Your task to perform on an android device: turn off picture-in-picture Image 0: 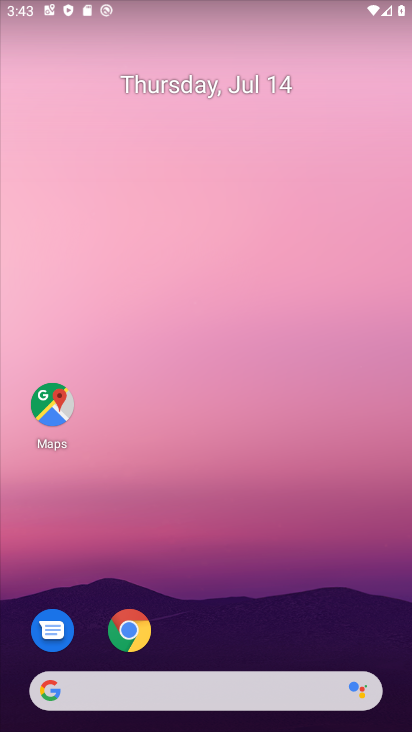
Step 0: drag from (221, 700) to (211, 168)
Your task to perform on an android device: turn off picture-in-picture Image 1: 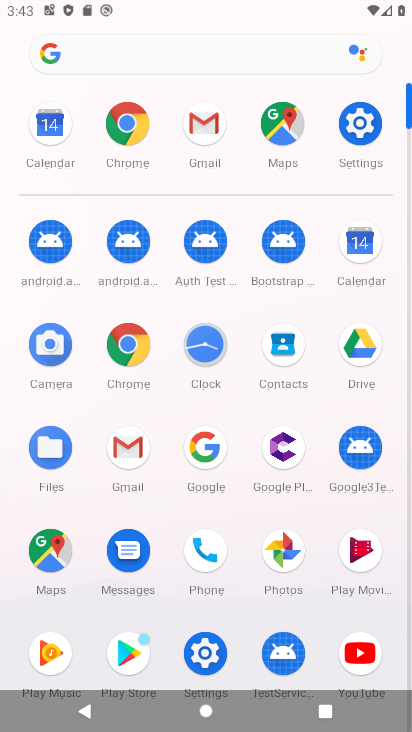
Step 1: click (366, 117)
Your task to perform on an android device: turn off picture-in-picture Image 2: 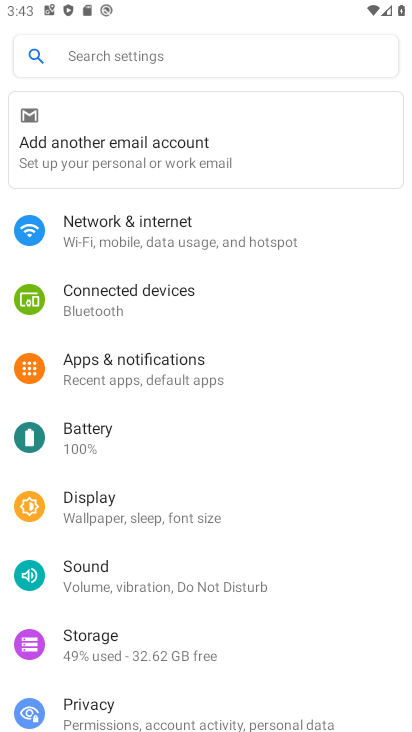
Step 2: click (87, 371)
Your task to perform on an android device: turn off picture-in-picture Image 3: 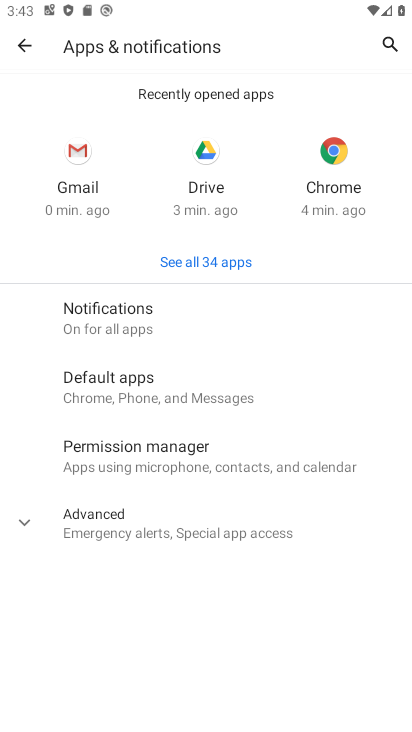
Step 3: click (102, 521)
Your task to perform on an android device: turn off picture-in-picture Image 4: 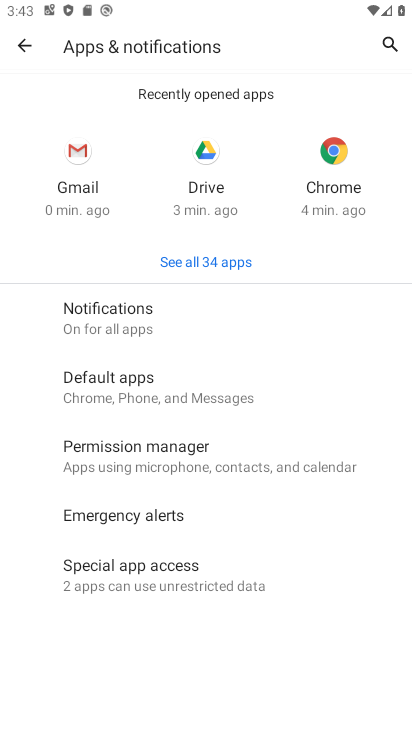
Step 4: click (111, 571)
Your task to perform on an android device: turn off picture-in-picture Image 5: 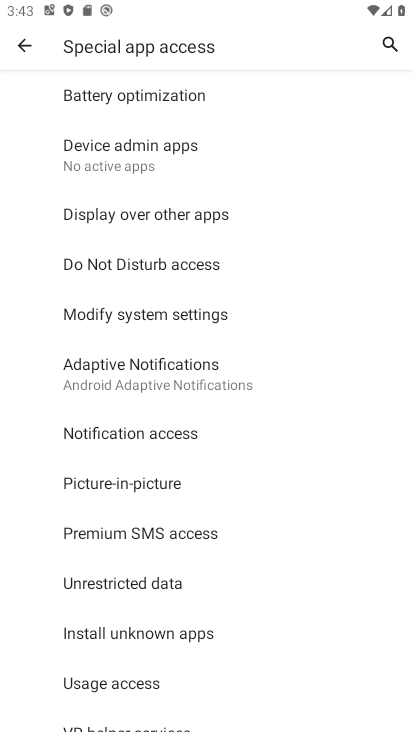
Step 5: click (129, 474)
Your task to perform on an android device: turn off picture-in-picture Image 6: 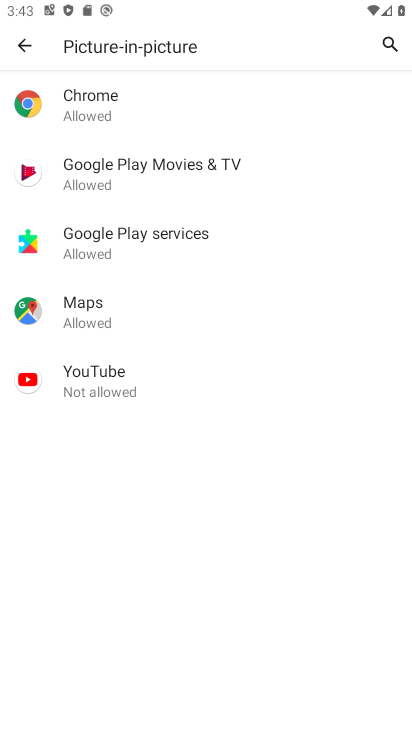
Step 6: click (107, 378)
Your task to perform on an android device: turn off picture-in-picture Image 7: 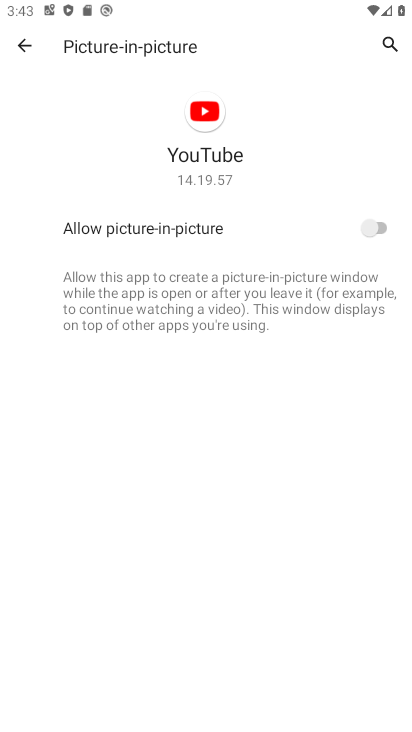
Step 7: task complete